Your task to perform on an android device: Open the map Image 0: 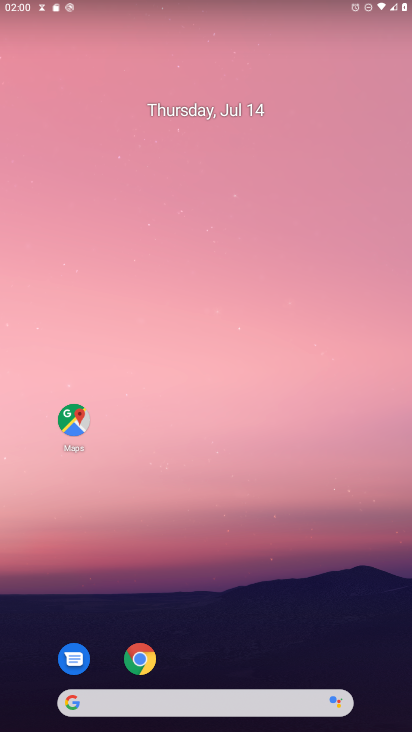
Step 0: click (81, 423)
Your task to perform on an android device: Open the map Image 1: 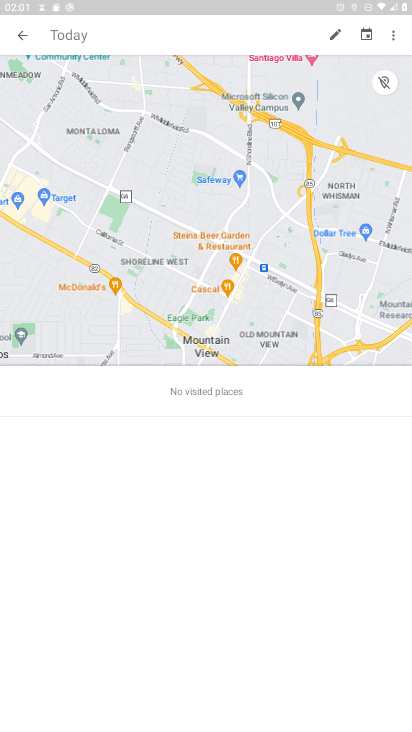
Step 1: task complete